Your task to perform on an android device: change the clock display to analog Image 0: 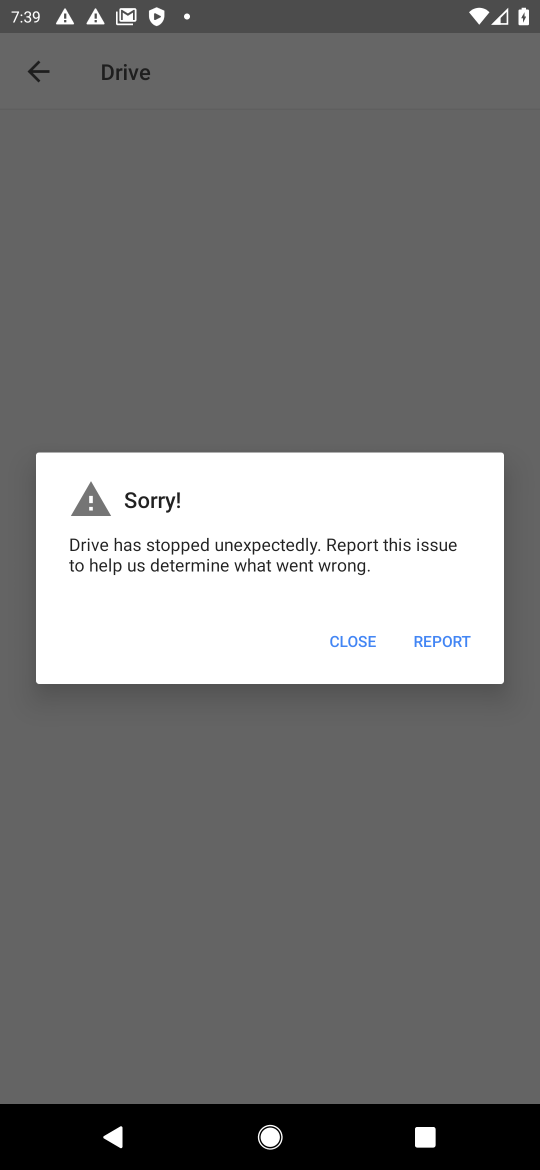
Step 0: press home button
Your task to perform on an android device: change the clock display to analog Image 1: 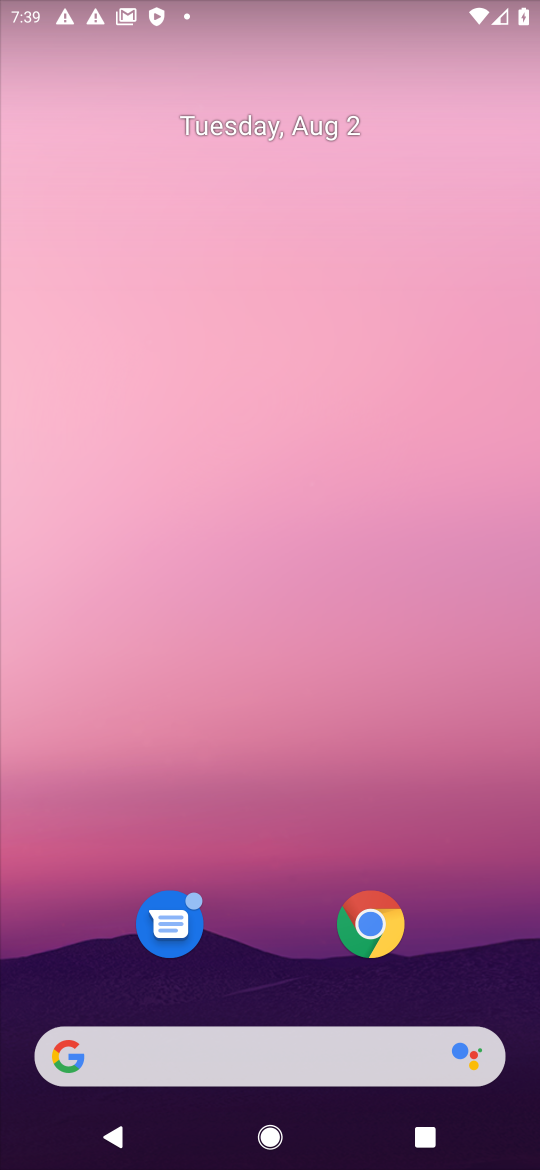
Step 1: drag from (374, 741) to (341, 80)
Your task to perform on an android device: change the clock display to analog Image 2: 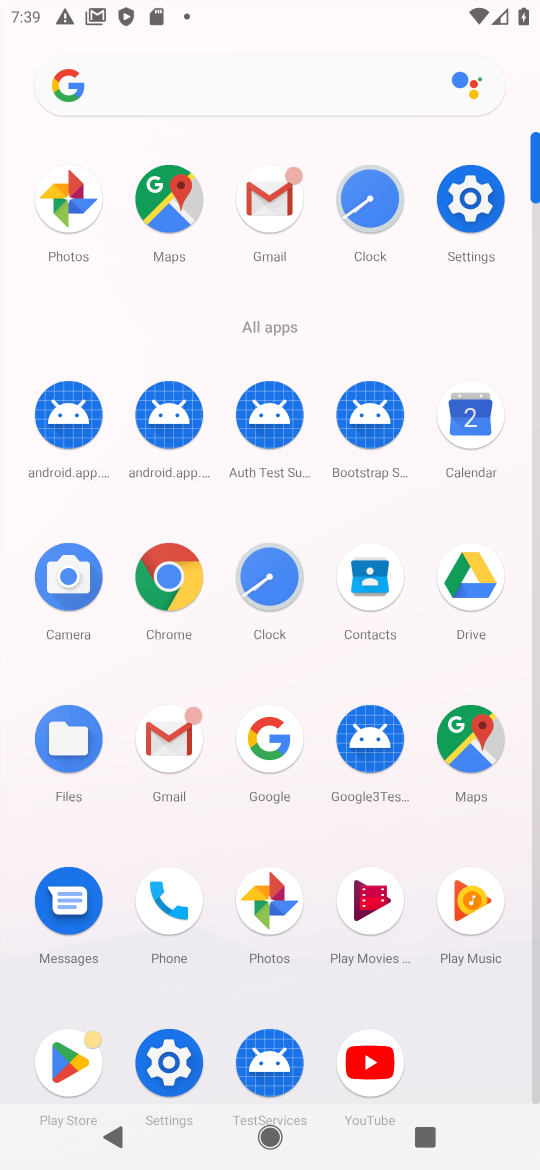
Step 2: click (372, 237)
Your task to perform on an android device: change the clock display to analog Image 3: 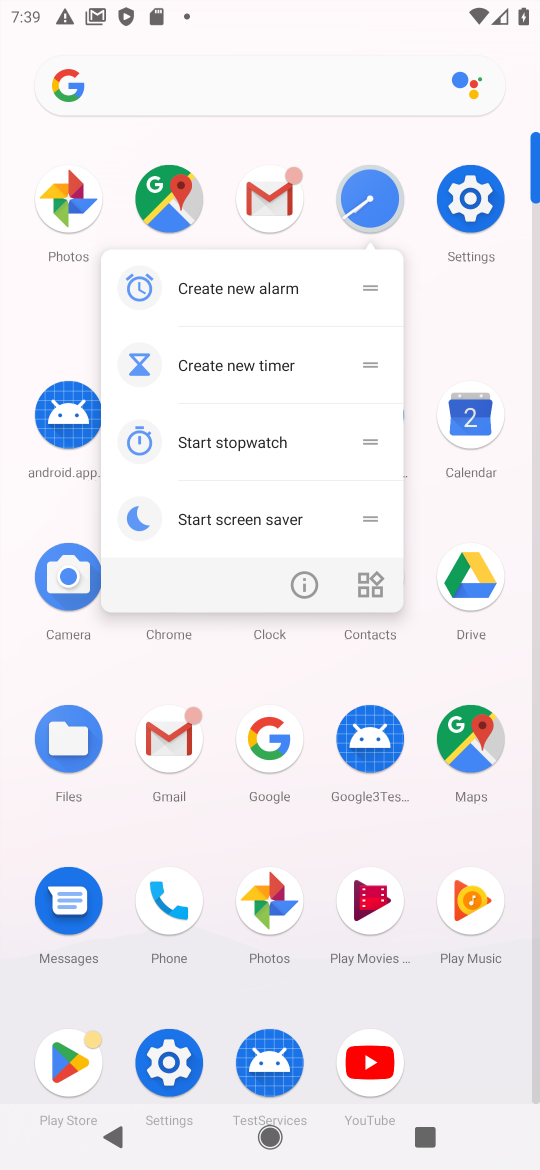
Step 3: click (372, 217)
Your task to perform on an android device: change the clock display to analog Image 4: 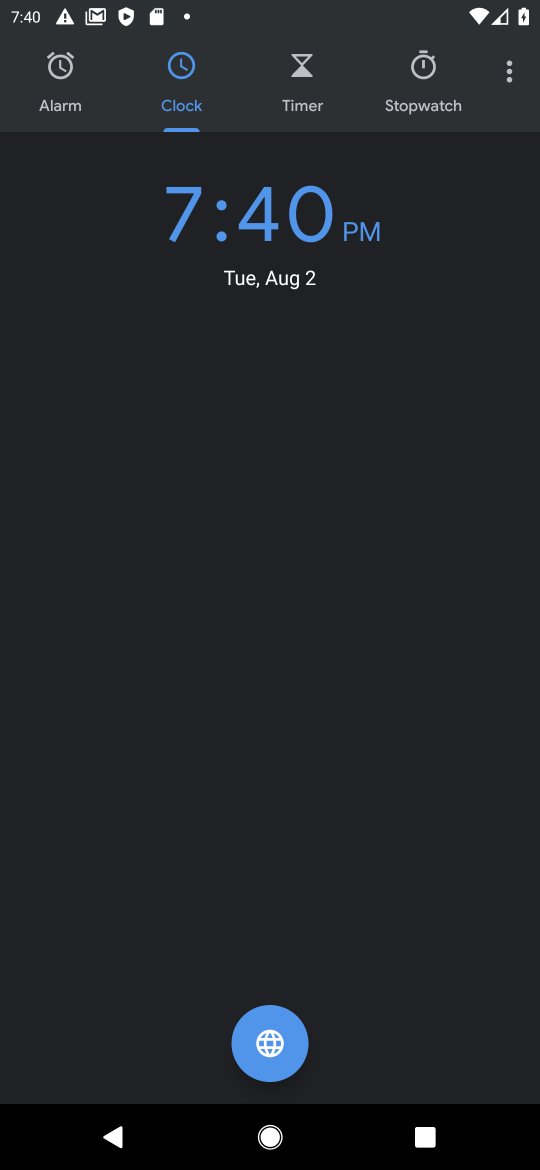
Step 4: click (516, 91)
Your task to perform on an android device: change the clock display to analog Image 5: 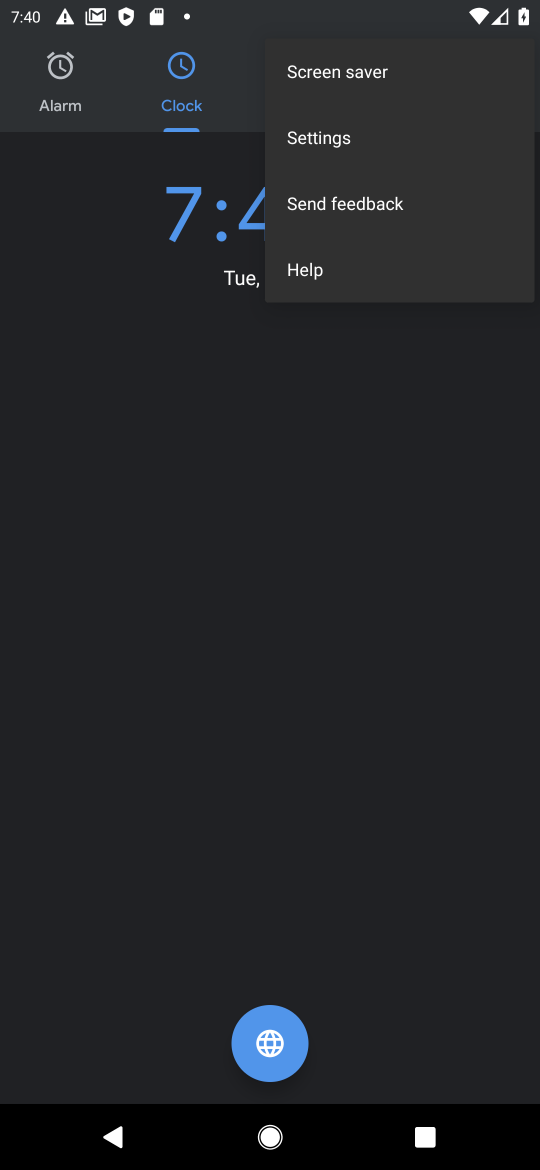
Step 5: click (430, 143)
Your task to perform on an android device: change the clock display to analog Image 6: 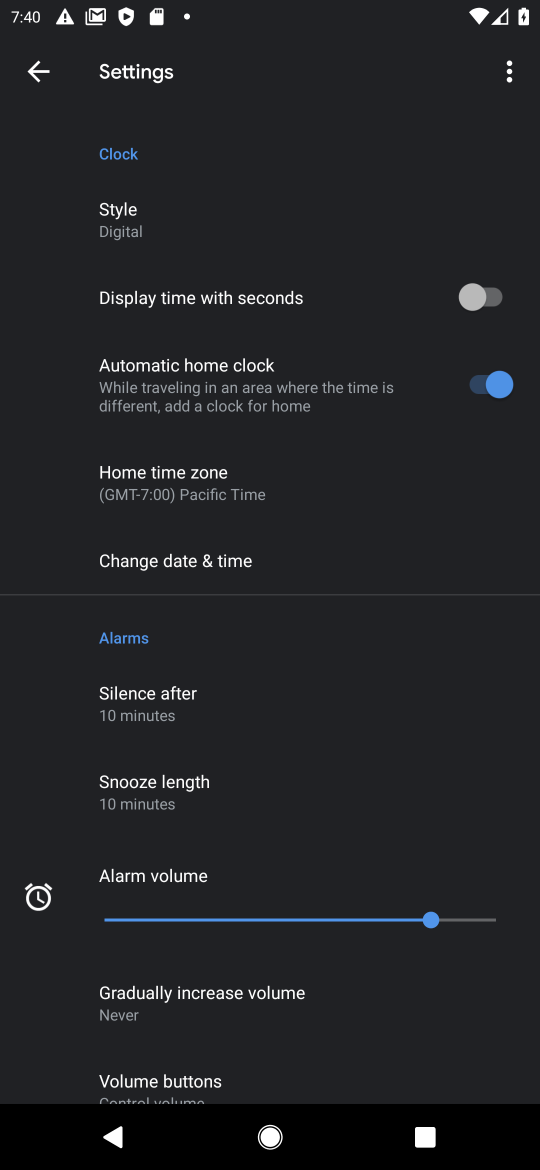
Step 6: click (473, 303)
Your task to perform on an android device: change the clock display to analog Image 7: 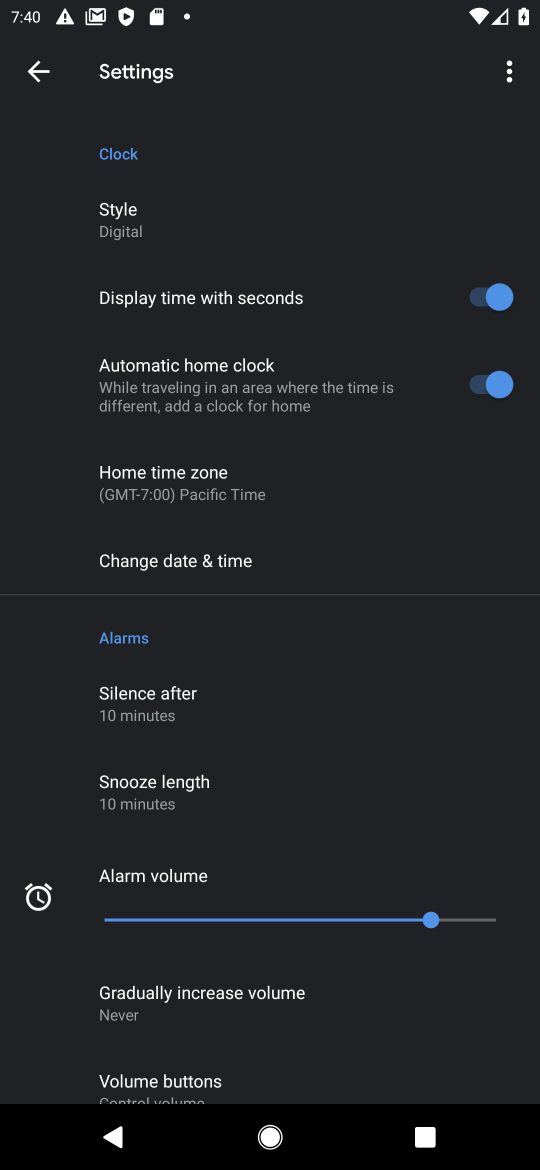
Step 7: task complete